Your task to perform on an android device: Go to internet settings Image 0: 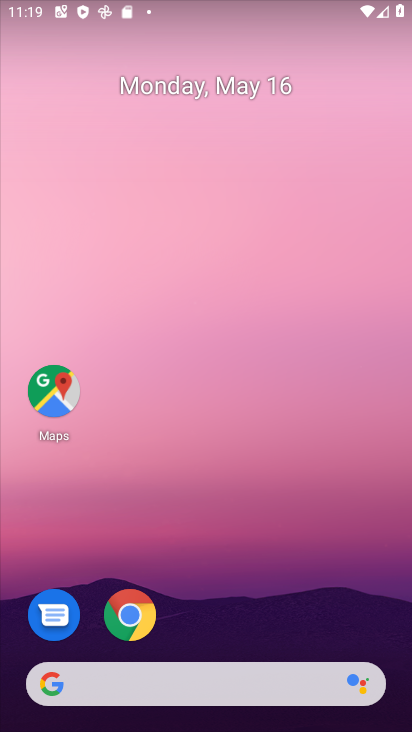
Step 0: drag from (200, 661) to (210, 160)
Your task to perform on an android device: Go to internet settings Image 1: 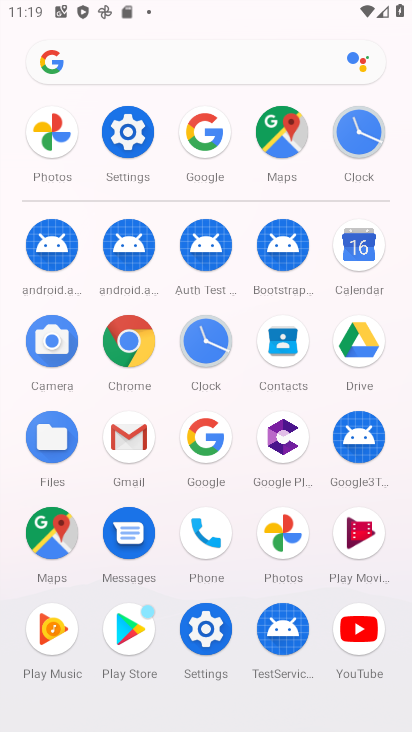
Step 1: click (132, 142)
Your task to perform on an android device: Go to internet settings Image 2: 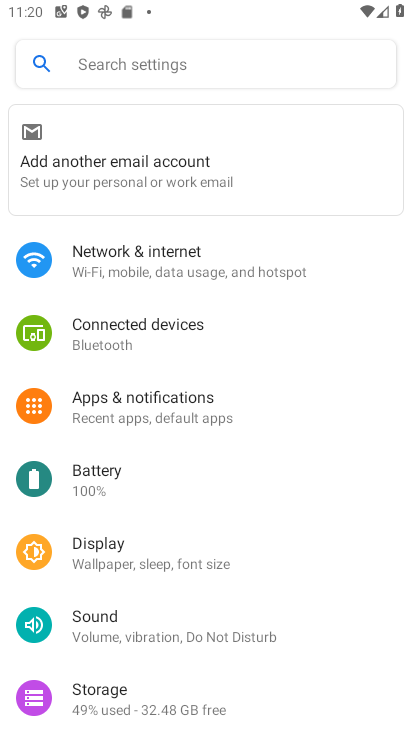
Step 2: click (135, 268)
Your task to perform on an android device: Go to internet settings Image 3: 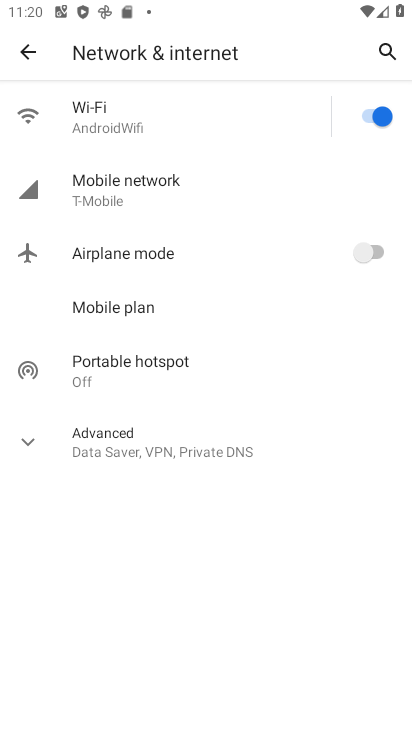
Step 3: task complete